Your task to perform on an android device: Open Yahoo.com Image 0: 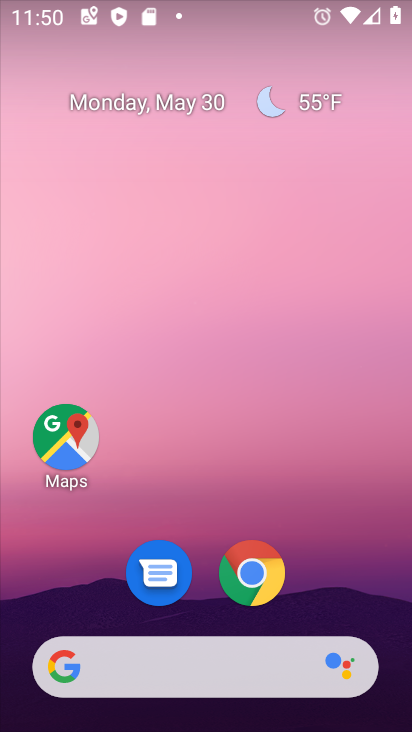
Step 0: click (273, 574)
Your task to perform on an android device: Open Yahoo.com Image 1: 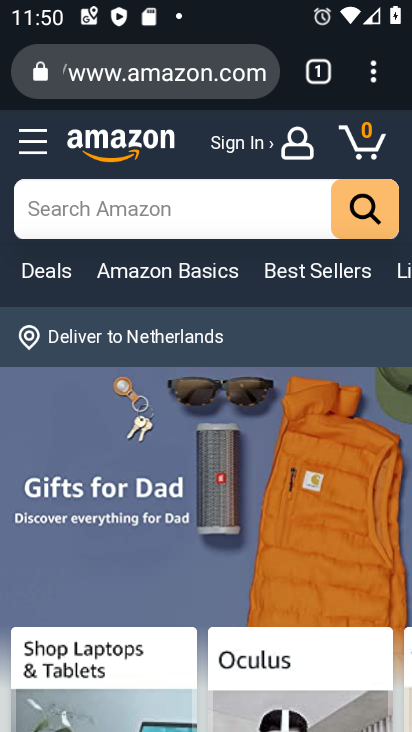
Step 1: click (322, 79)
Your task to perform on an android device: Open Yahoo.com Image 2: 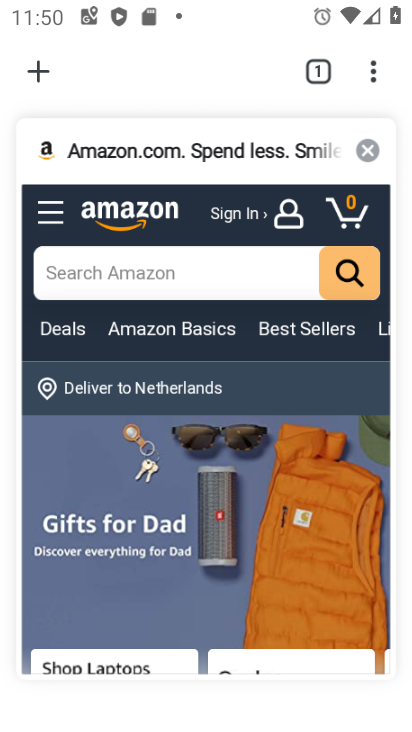
Step 2: click (372, 148)
Your task to perform on an android device: Open Yahoo.com Image 3: 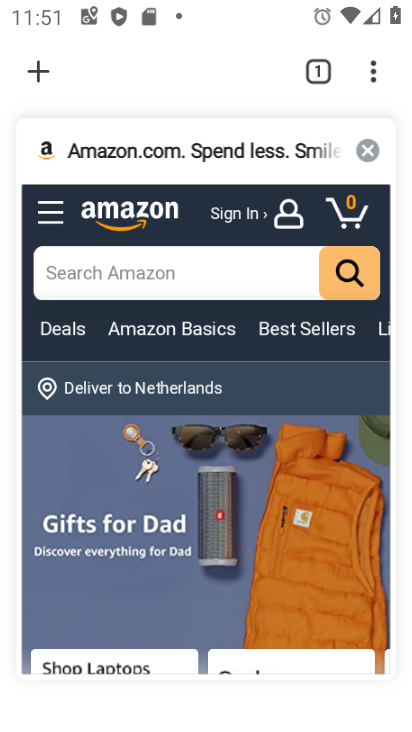
Step 3: click (373, 151)
Your task to perform on an android device: Open Yahoo.com Image 4: 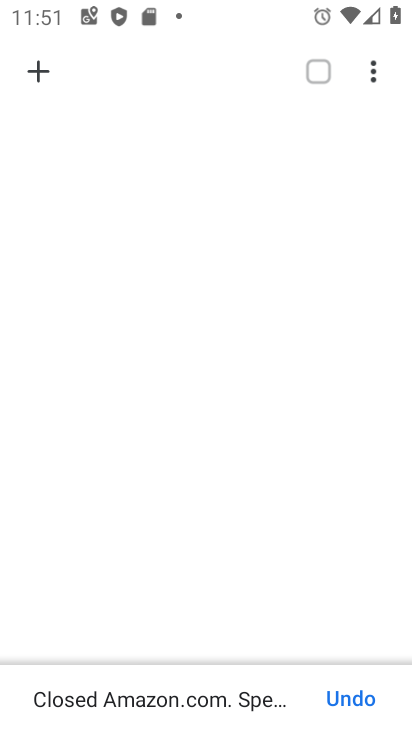
Step 4: click (30, 70)
Your task to perform on an android device: Open Yahoo.com Image 5: 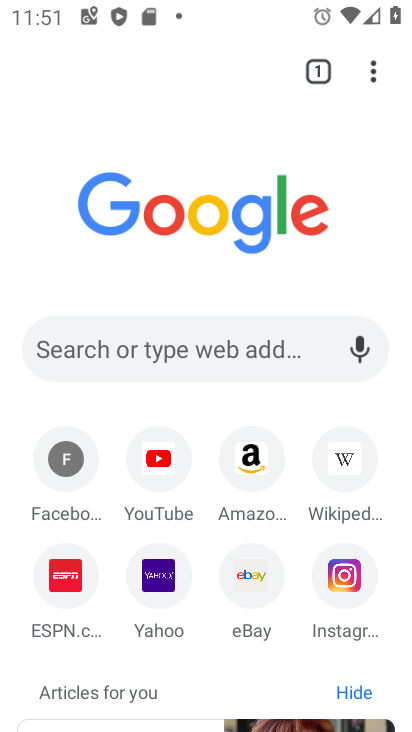
Step 5: click (155, 593)
Your task to perform on an android device: Open Yahoo.com Image 6: 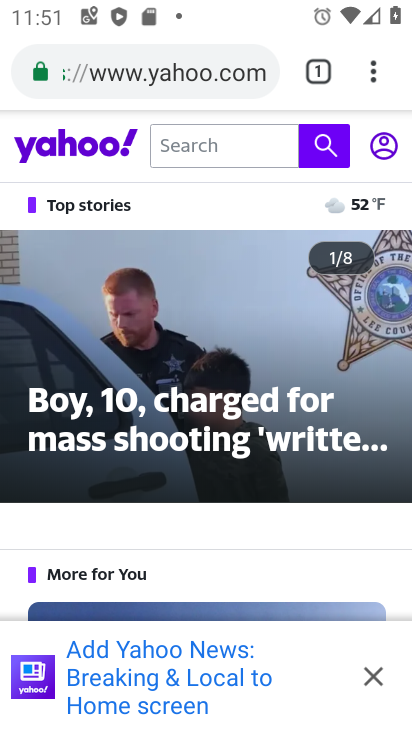
Step 6: task complete